Your task to perform on an android device: open app "Mercado Libre" (install if not already installed) Image 0: 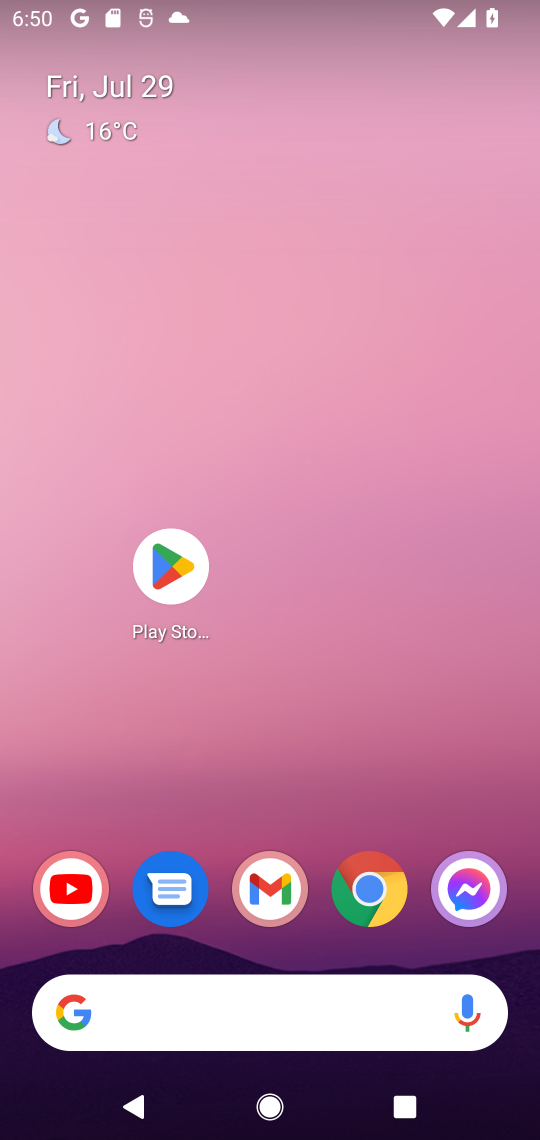
Step 0: press home button
Your task to perform on an android device: open app "Mercado Libre" (install if not already installed) Image 1: 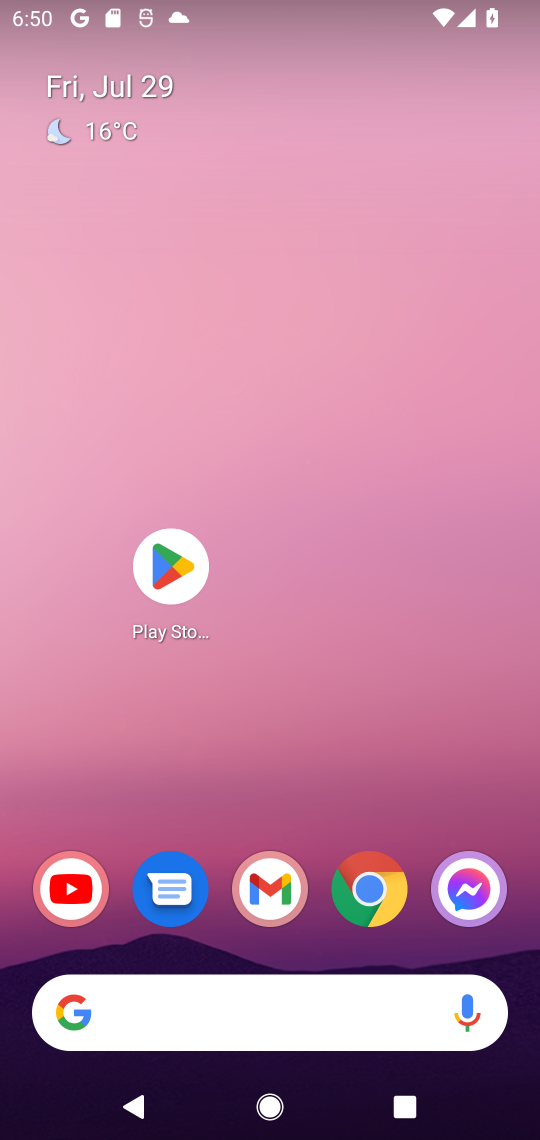
Step 1: click (169, 574)
Your task to perform on an android device: open app "Mercado Libre" (install if not already installed) Image 2: 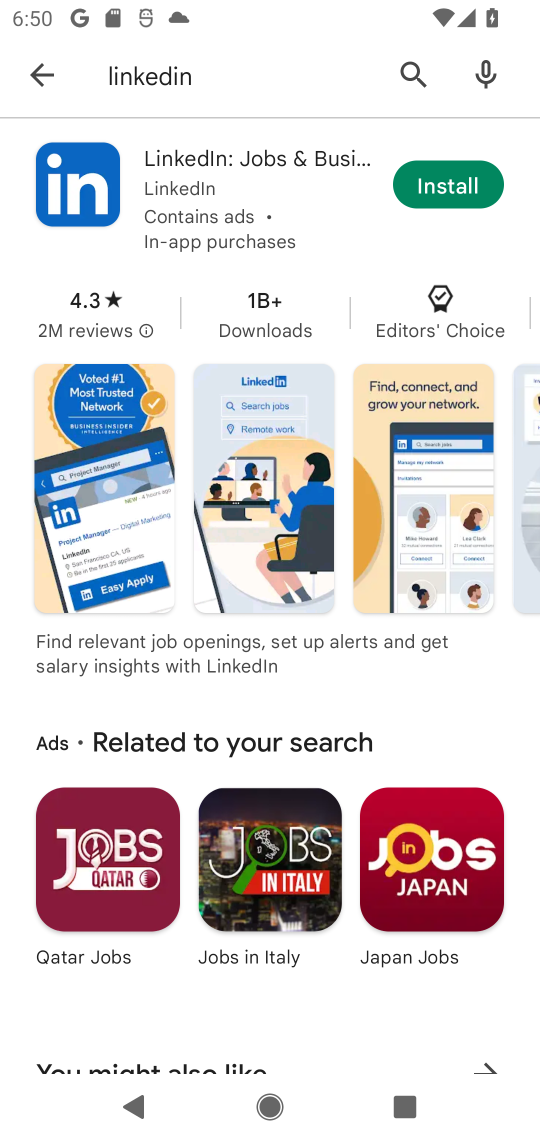
Step 2: click (412, 66)
Your task to perform on an android device: open app "Mercado Libre" (install if not already installed) Image 3: 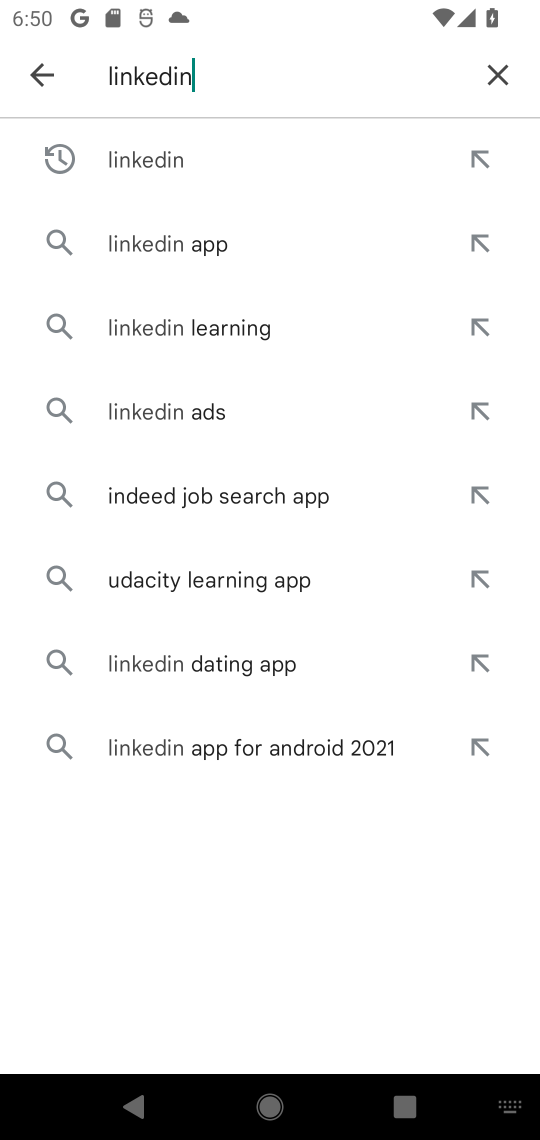
Step 3: click (496, 69)
Your task to perform on an android device: open app "Mercado Libre" (install if not already installed) Image 4: 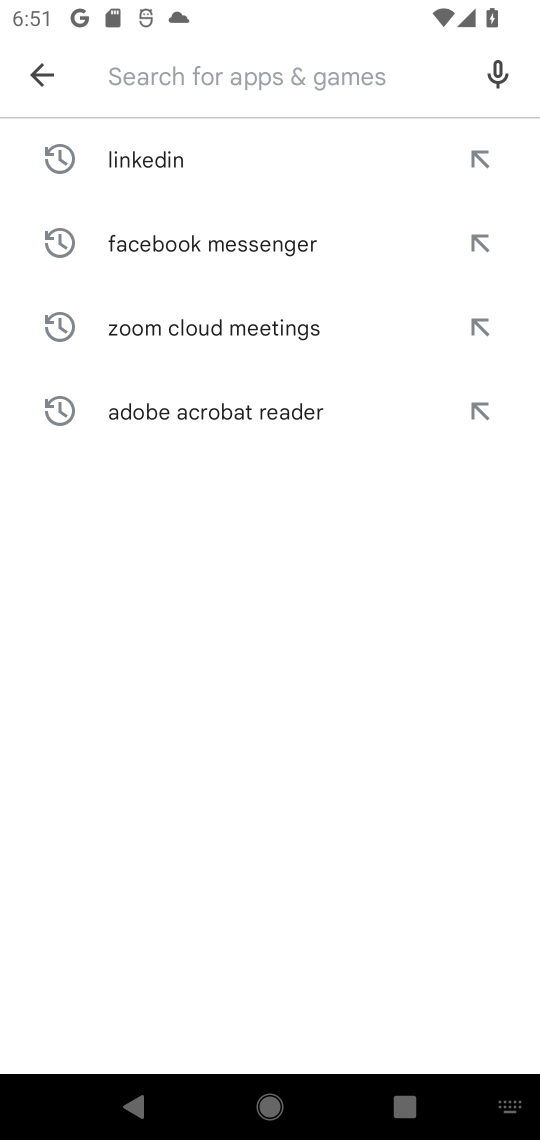
Step 4: type "Mercado Libre"
Your task to perform on an android device: open app "Mercado Libre" (install if not already installed) Image 5: 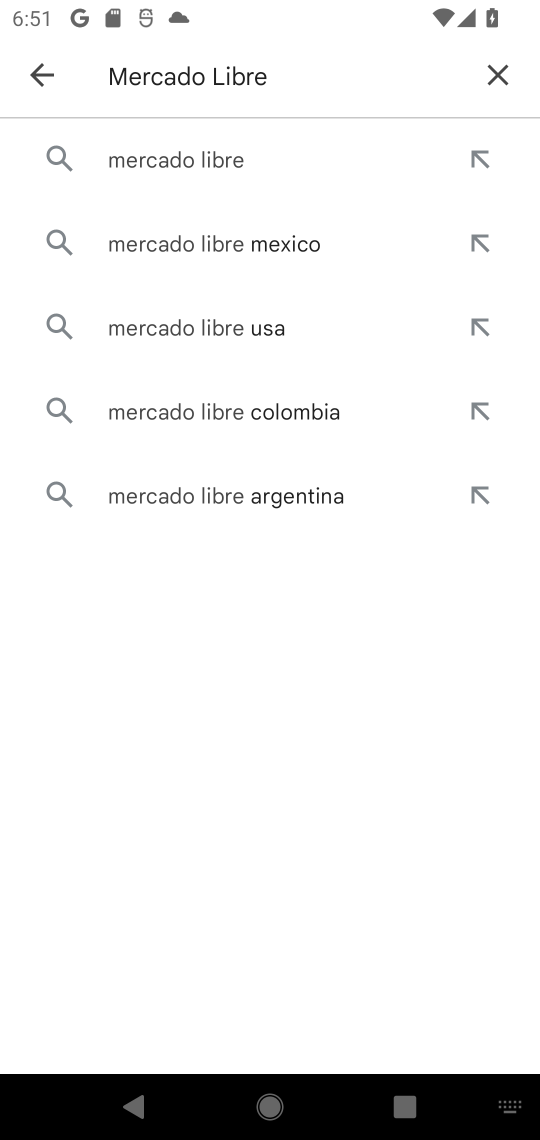
Step 5: click (221, 161)
Your task to perform on an android device: open app "Mercado Libre" (install if not already installed) Image 6: 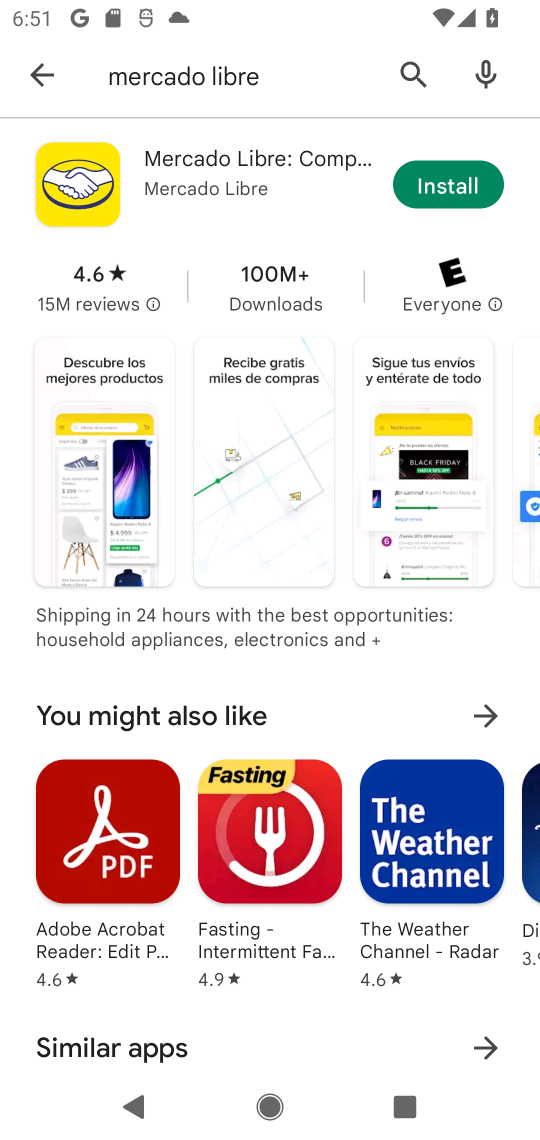
Step 6: click (467, 178)
Your task to perform on an android device: open app "Mercado Libre" (install if not already installed) Image 7: 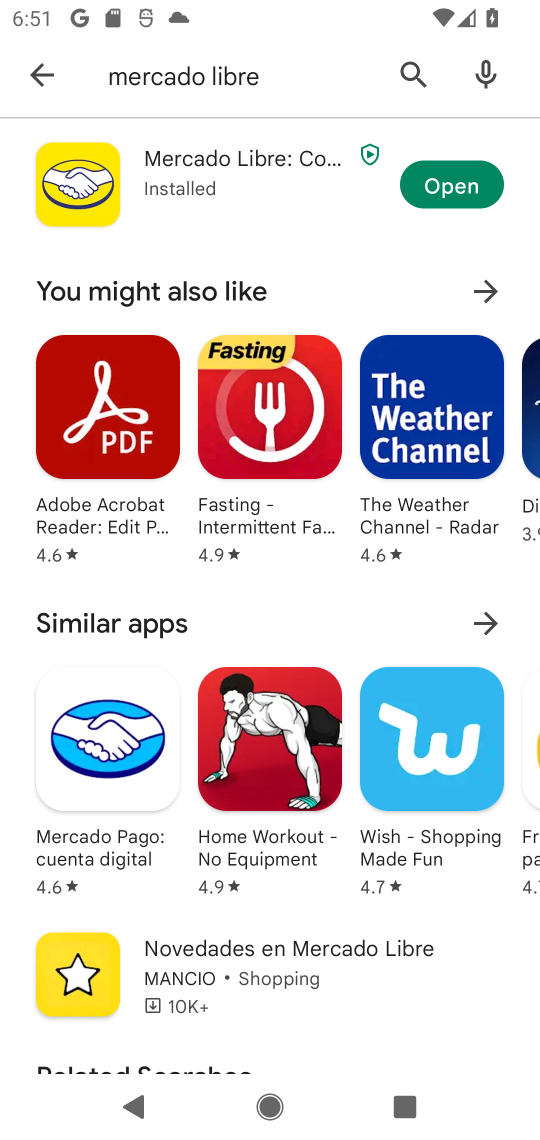
Step 7: click (467, 187)
Your task to perform on an android device: open app "Mercado Libre" (install if not already installed) Image 8: 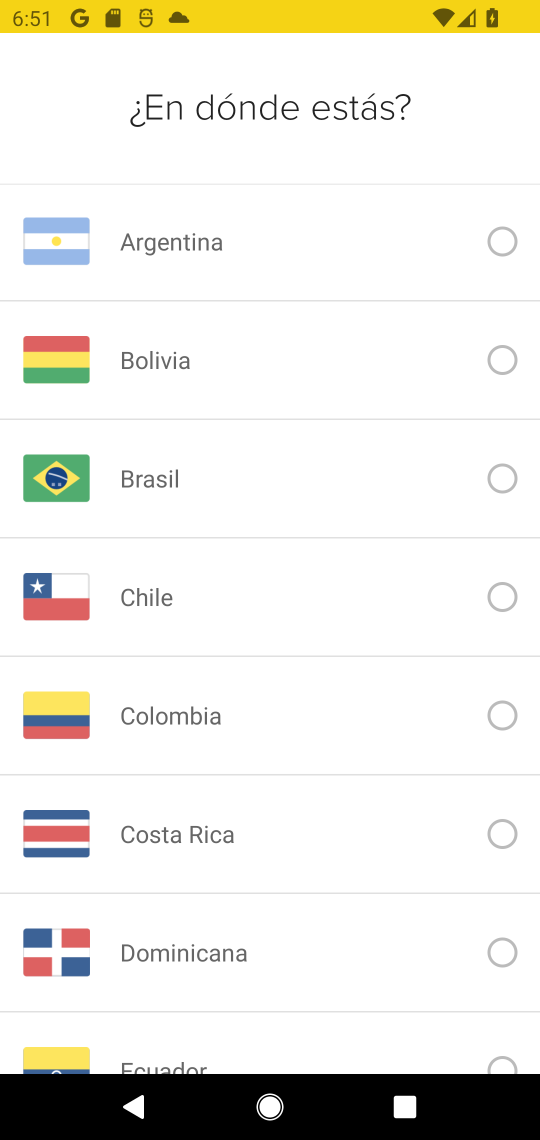
Step 8: task complete